Your task to perform on an android device: stop showing notifications on the lock screen Image 0: 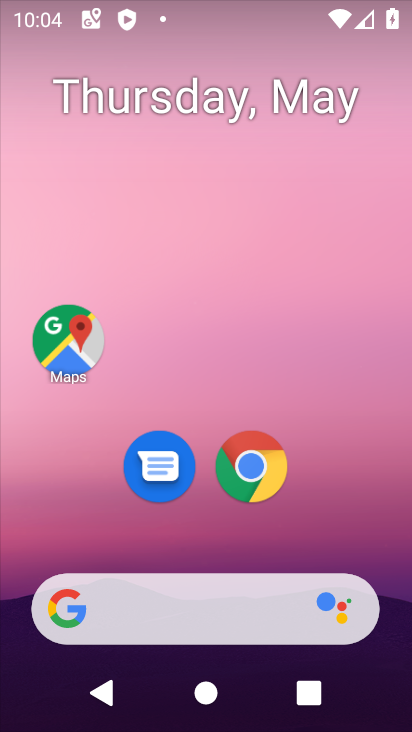
Step 0: drag from (311, 549) to (278, 231)
Your task to perform on an android device: stop showing notifications on the lock screen Image 1: 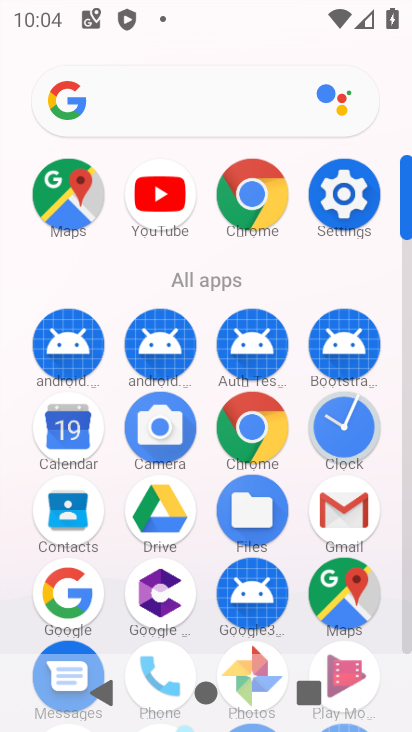
Step 1: click (351, 198)
Your task to perform on an android device: stop showing notifications on the lock screen Image 2: 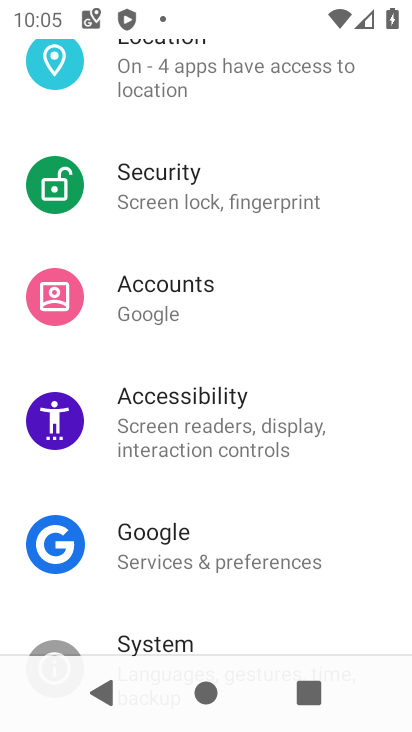
Step 2: drag from (248, 109) to (196, 422)
Your task to perform on an android device: stop showing notifications on the lock screen Image 3: 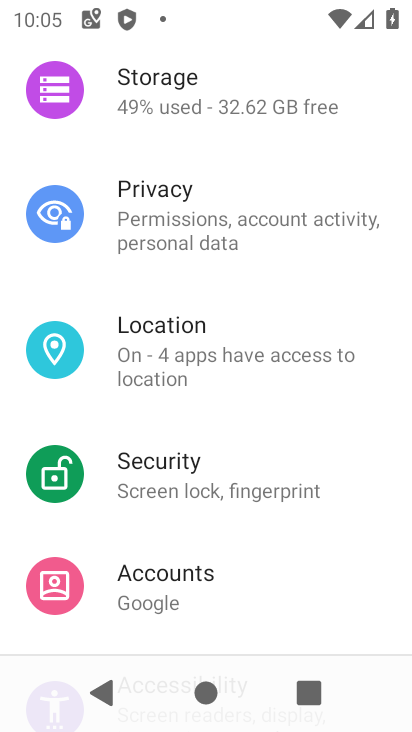
Step 3: drag from (174, 175) to (177, 681)
Your task to perform on an android device: stop showing notifications on the lock screen Image 4: 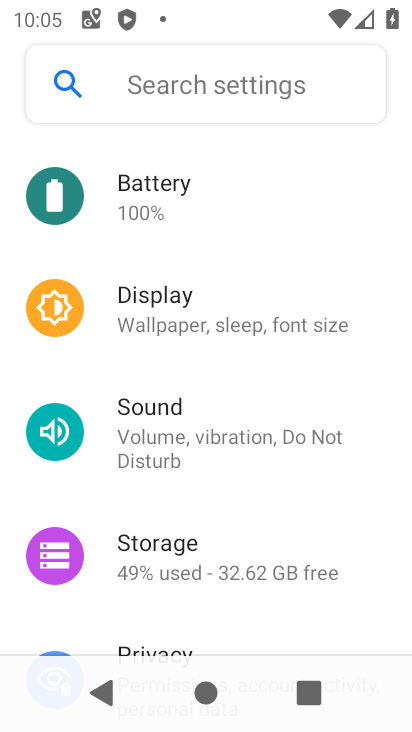
Step 4: drag from (167, 198) to (213, 585)
Your task to perform on an android device: stop showing notifications on the lock screen Image 5: 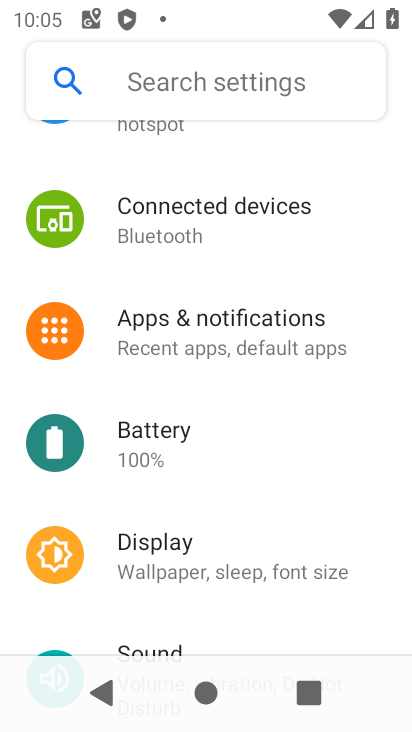
Step 5: click (193, 341)
Your task to perform on an android device: stop showing notifications on the lock screen Image 6: 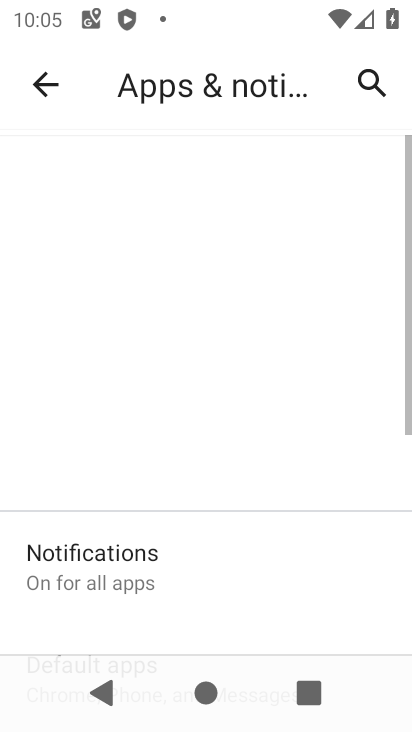
Step 6: drag from (201, 585) to (288, 191)
Your task to perform on an android device: stop showing notifications on the lock screen Image 7: 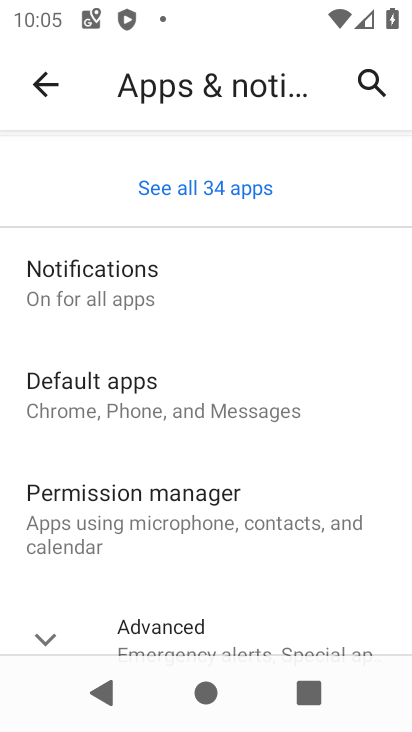
Step 7: click (117, 271)
Your task to perform on an android device: stop showing notifications on the lock screen Image 8: 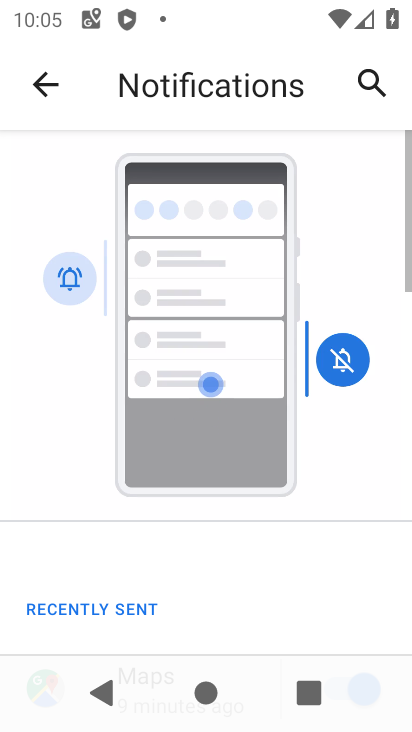
Step 8: drag from (142, 522) to (217, 158)
Your task to perform on an android device: stop showing notifications on the lock screen Image 9: 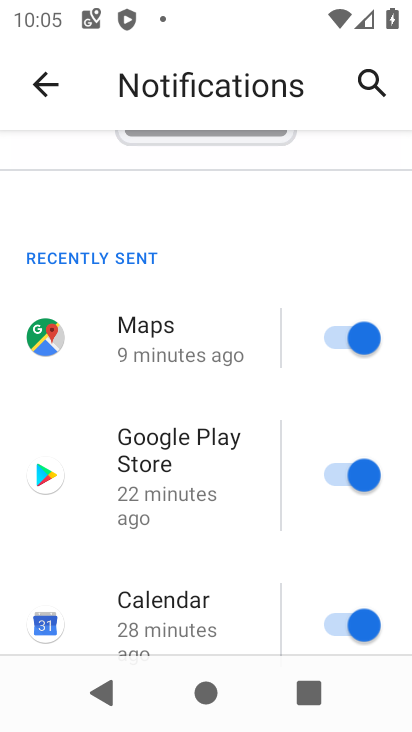
Step 9: drag from (158, 599) to (213, 247)
Your task to perform on an android device: stop showing notifications on the lock screen Image 10: 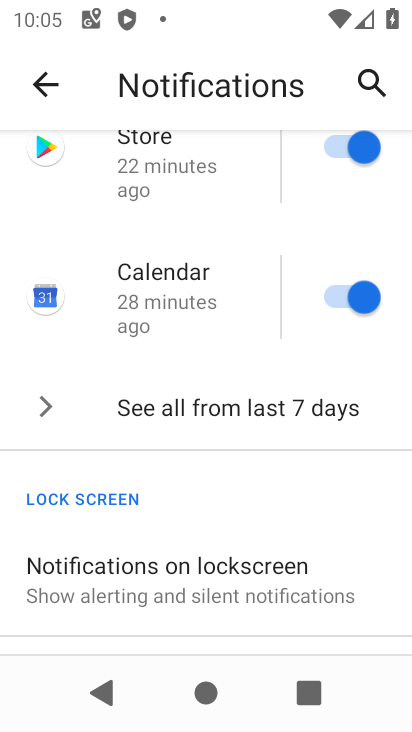
Step 10: click (222, 564)
Your task to perform on an android device: stop showing notifications on the lock screen Image 11: 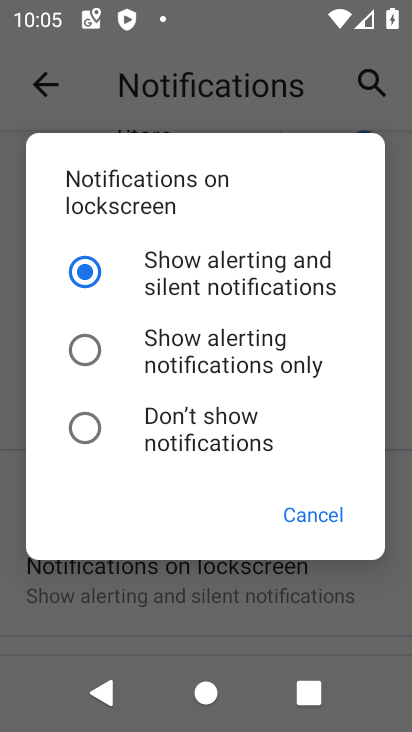
Step 11: click (131, 420)
Your task to perform on an android device: stop showing notifications on the lock screen Image 12: 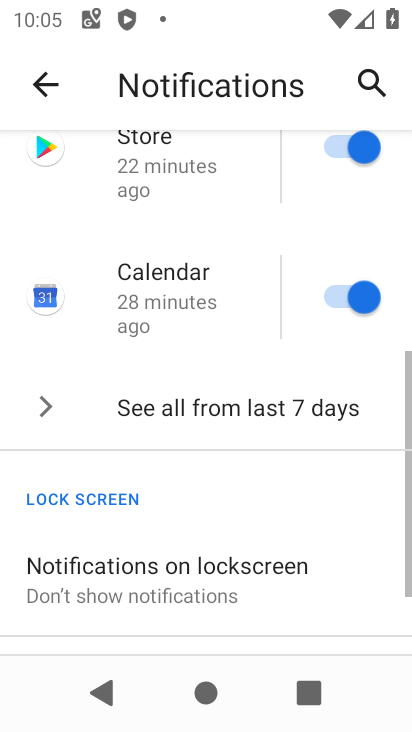
Step 12: task complete